Your task to perform on an android device: allow notifications from all sites in the chrome app Image 0: 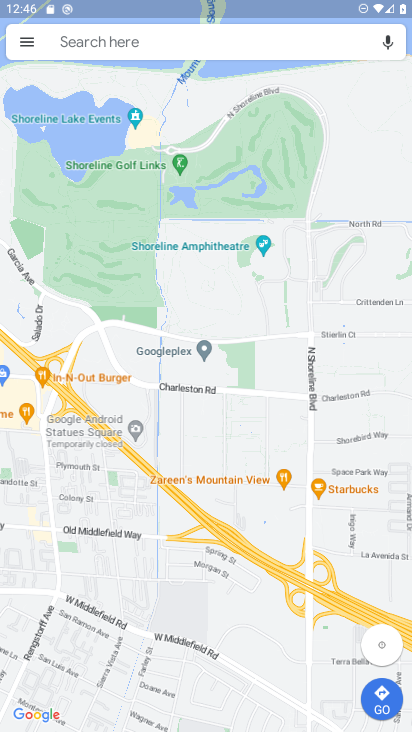
Step 0: press home button
Your task to perform on an android device: allow notifications from all sites in the chrome app Image 1: 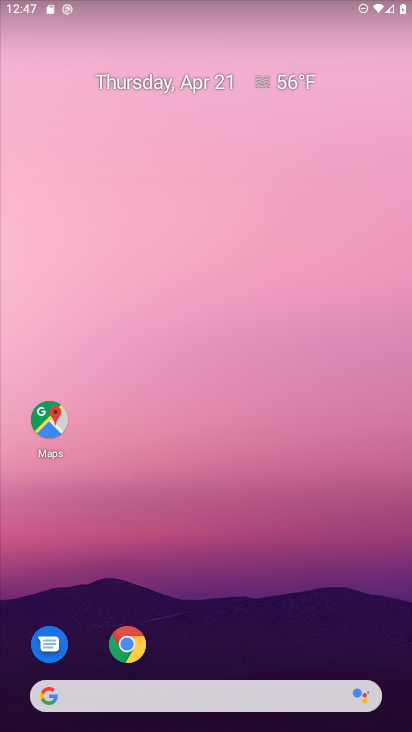
Step 1: click (128, 643)
Your task to perform on an android device: allow notifications from all sites in the chrome app Image 2: 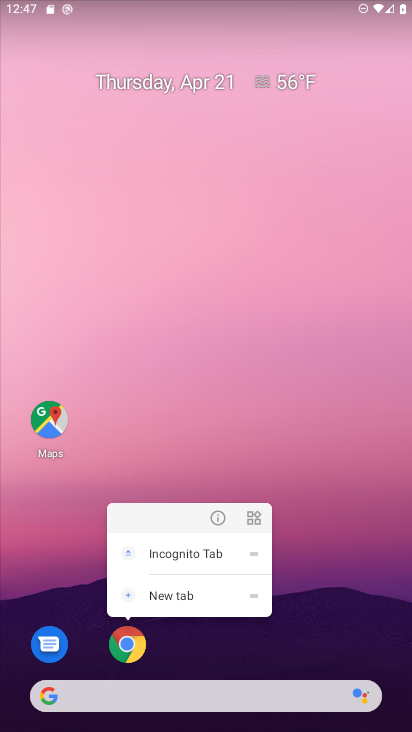
Step 2: click (215, 519)
Your task to perform on an android device: allow notifications from all sites in the chrome app Image 3: 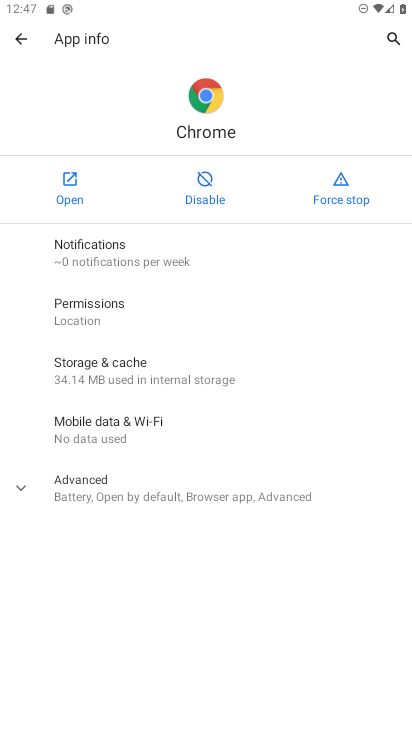
Step 3: click (68, 192)
Your task to perform on an android device: allow notifications from all sites in the chrome app Image 4: 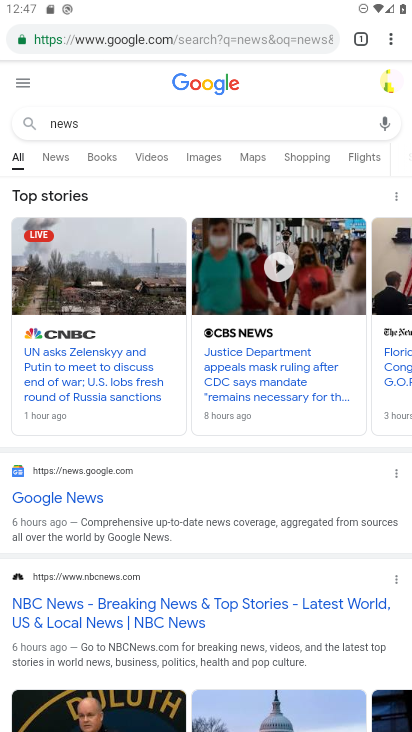
Step 4: click (390, 41)
Your task to perform on an android device: allow notifications from all sites in the chrome app Image 5: 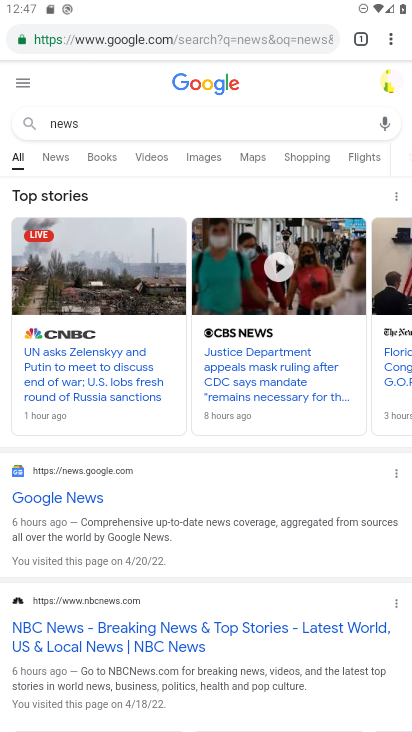
Step 5: click (390, 41)
Your task to perform on an android device: allow notifications from all sites in the chrome app Image 6: 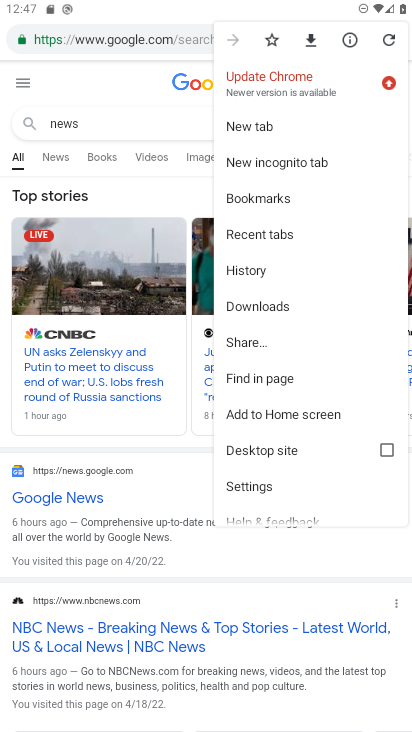
Step 6: drag from (271, 476) to (270, 216)
Your task to perform on an android device: allow notifications from all sites in the chrome app Image 7: 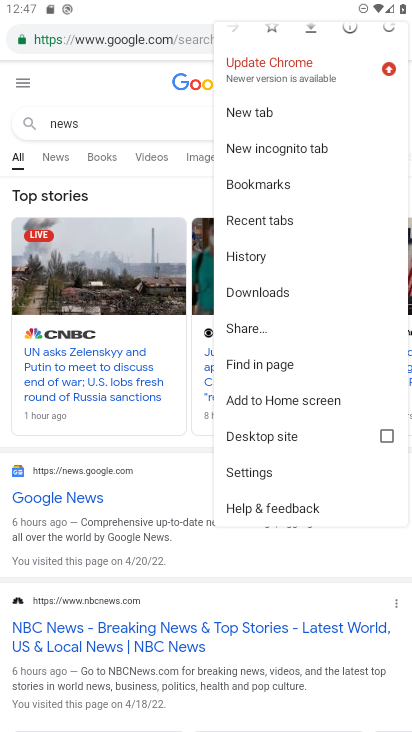
Step 7: click (266, 469)
Your task to perform on an android device: allow notifications from all sites in the chrome app Image 8: 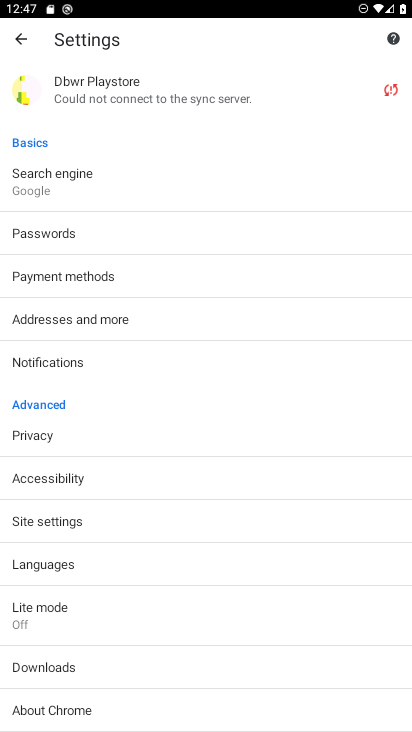
Step 8: click (73, 358)
Your task to perform on an android device: allow notifications from all sites in the chrome app Image 9: 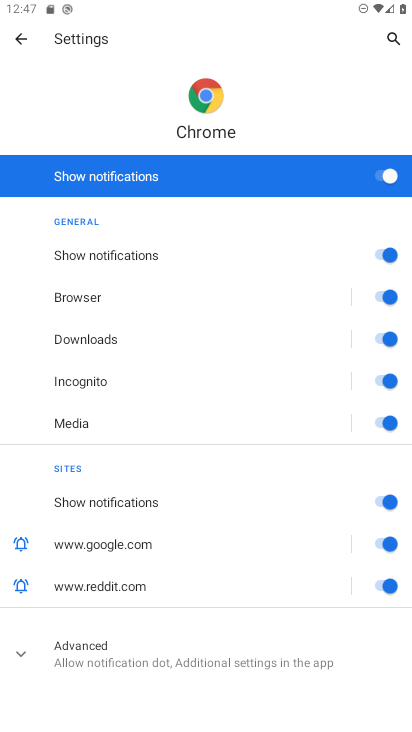
Step 9: task complete